Your task to perform on an android device: Open Google Maps Image 0: 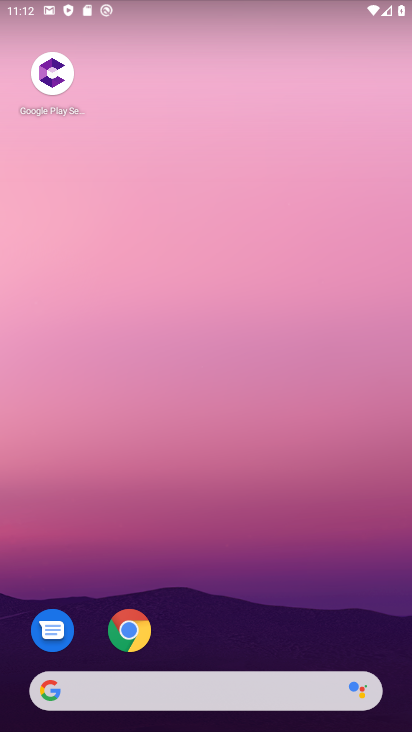
Step 0: drag from (212, 610) to (199, 176)
Your task to perform on an android device: Open Google Maps Image 1: 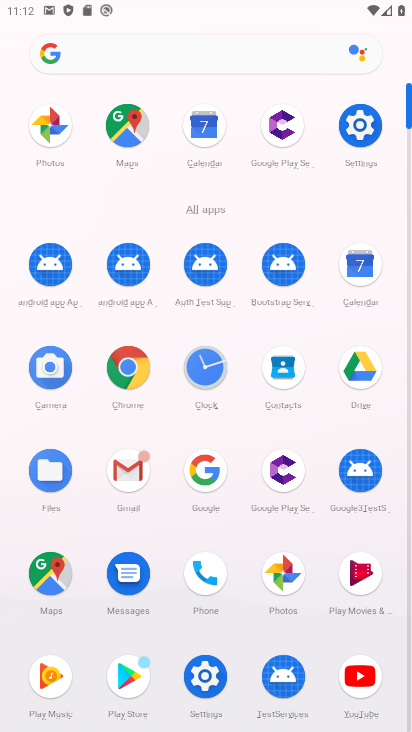
Step 1: click (119, 143)
Your task to perform on an android device: Open Google Maps Image 2: 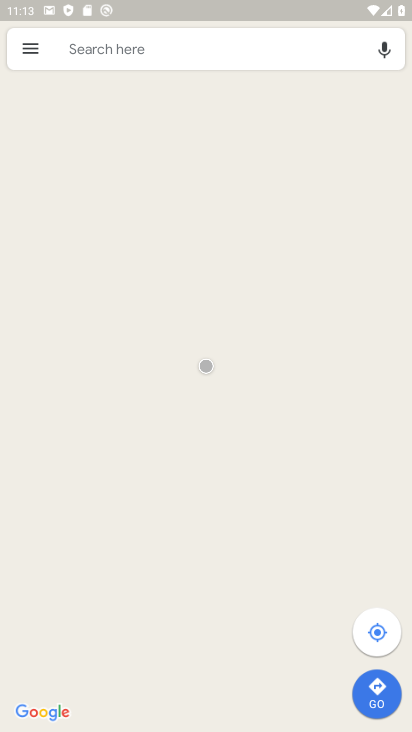
Step 2: task complete